Your task to perform on an android device: change text size in settings app Image 0: 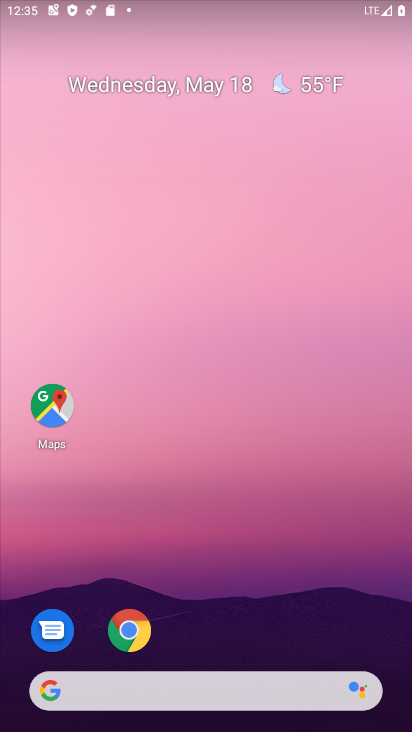
Step 0: drag from (233, 592) to (320, 208)
Your task to perform on an android device: change text size in settings app Image 1: 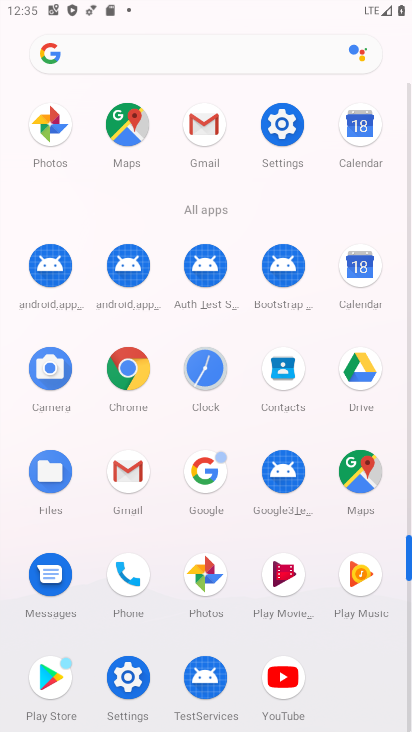
Step 1: click (123, 686)
Your task to perform on an android device: change text size in settings app Image 2: 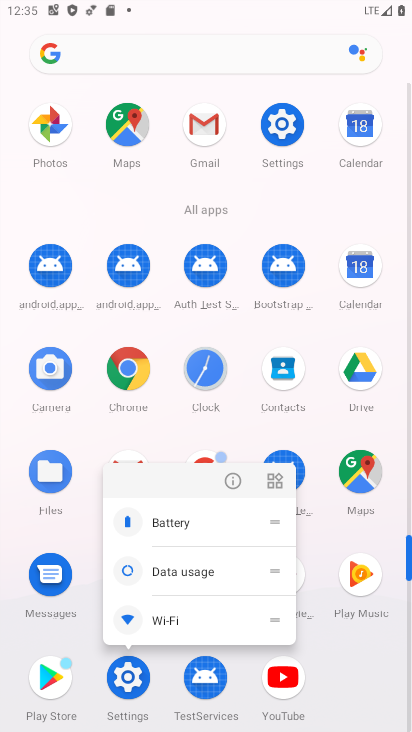
Step 2: click (130, 677)
Your task to perform on an android device: change text size in settings app Image 3: 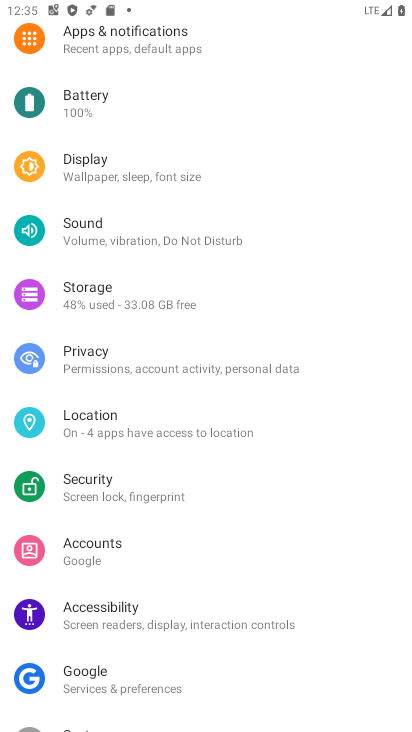
Step 3: drag from (214, 254) to (215, 652)
Your task to perform on an android device: change text size in settings app Image 4: 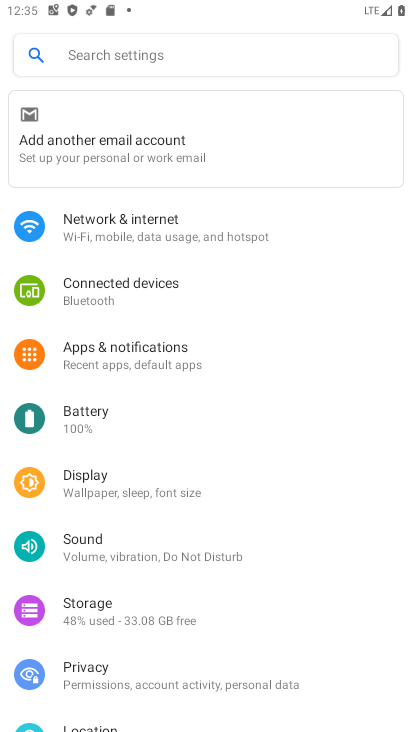
Step 4: click (134, 495)
Your task to perform on an android device: change text size in settings app Image 5: 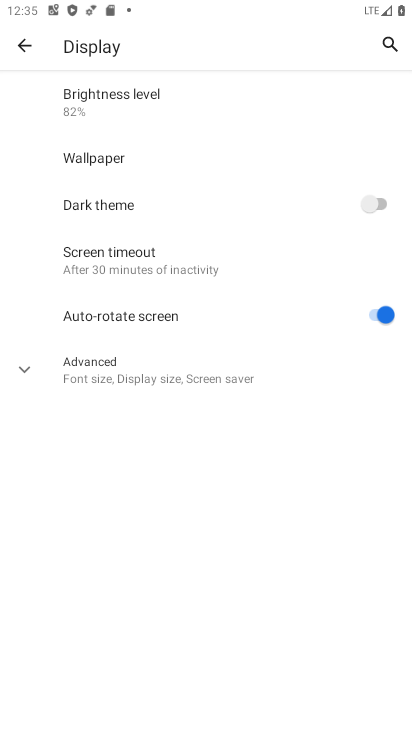
Step 5: click (180, 383)
Your task to perform on an android device: change text size in settings app Image 6: 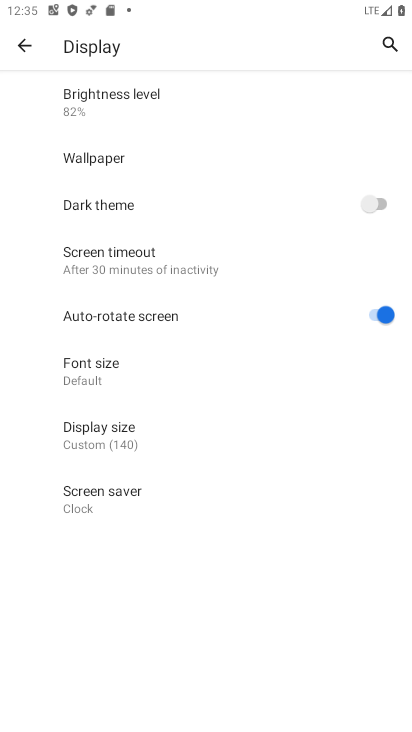
Step 6: click (148, 377)
Your task to perform on an android device: change text size in settings app Image 7: 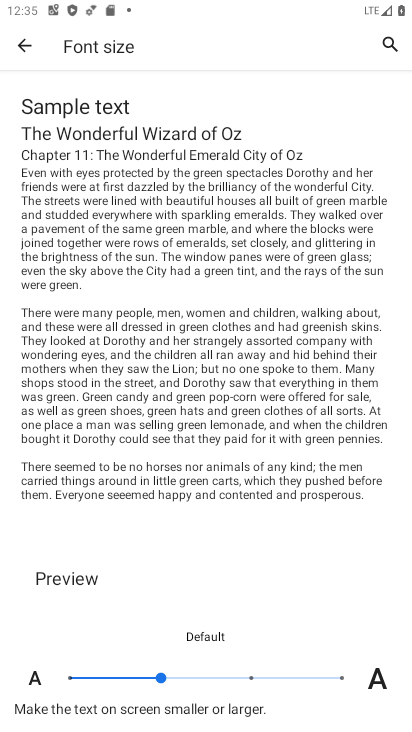
Step 7: click (248, 679)
Your task to perform on an android device: change text size in settings app Image 8: 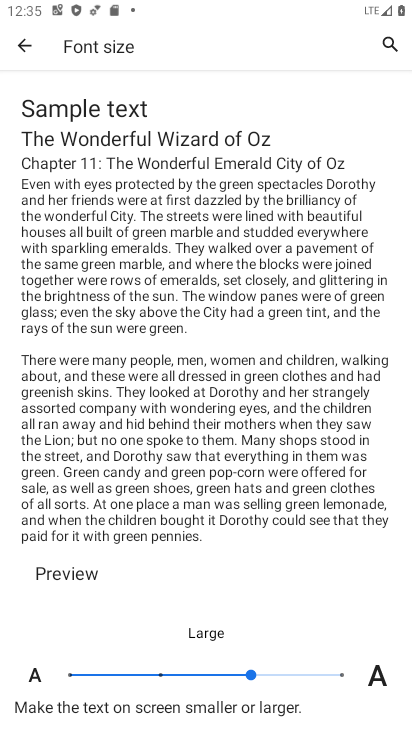
Step 8: task complete